Your task to perform on an android device: clear history in the chrome app Image 0: 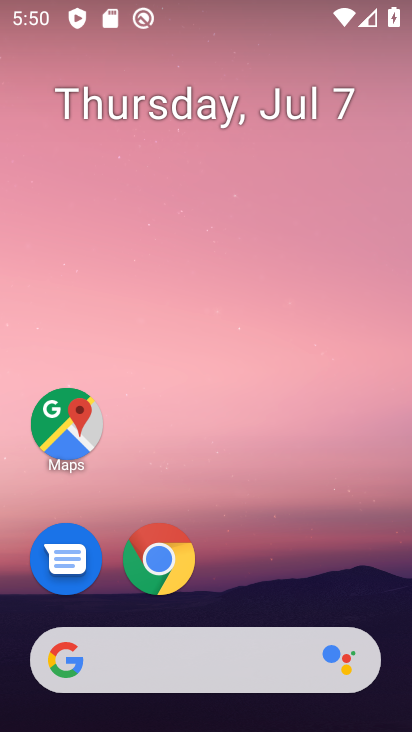
Step 0: drag from (264, 611) to (288, 46)
Your task to perform on an android device: clear history in the chrome app Image 1: 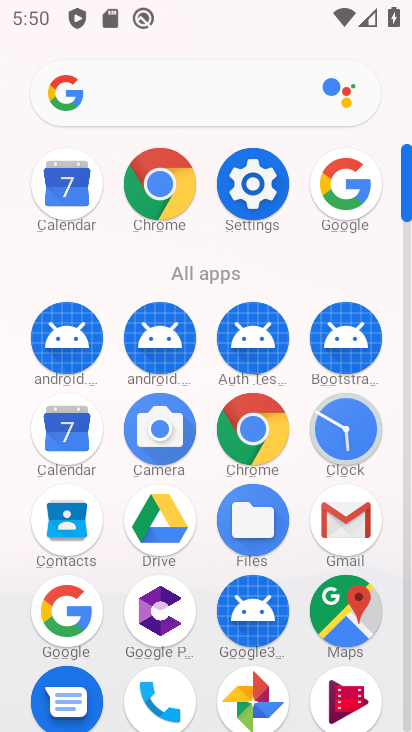
Step 1: click (160, 218)
Your task to perform on an android device: clear history in the chrome app Image 2: 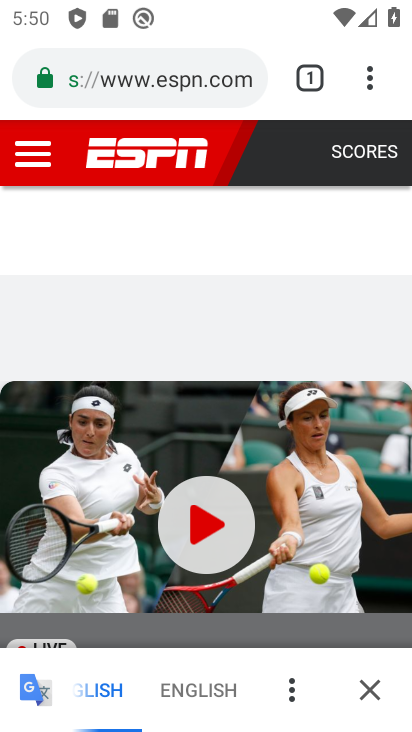
Step 2: click (375, 90)
Your task to perform on an android device: clear history in the chrome app Image 3: 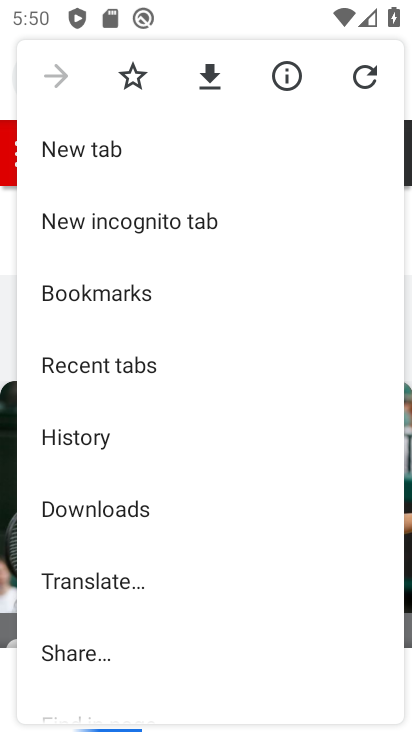
Step 3: click (103, 440)
Your task to perform on an android device: clear history in the chrome app Image 4: 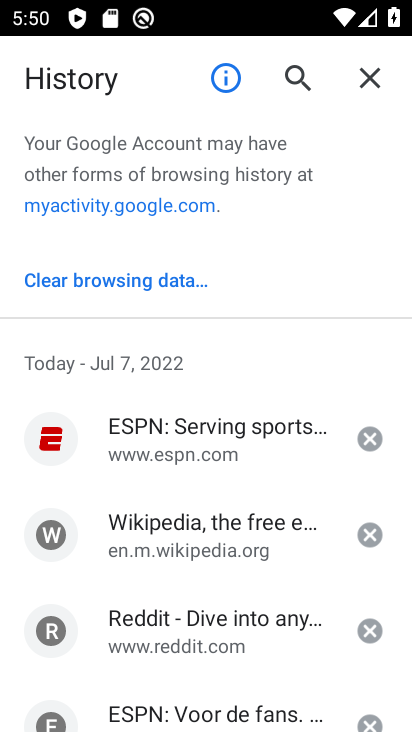
Step 4: click (153, 290)
Your task to perform on an android device: clear history in the chrome app Image 5: 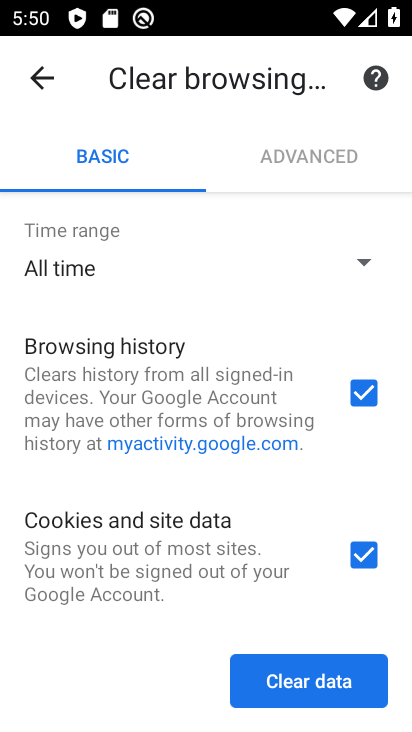
Step 5: click (365, 556)
Your task to perform on an android device: clear history in the chrome app Image 6: 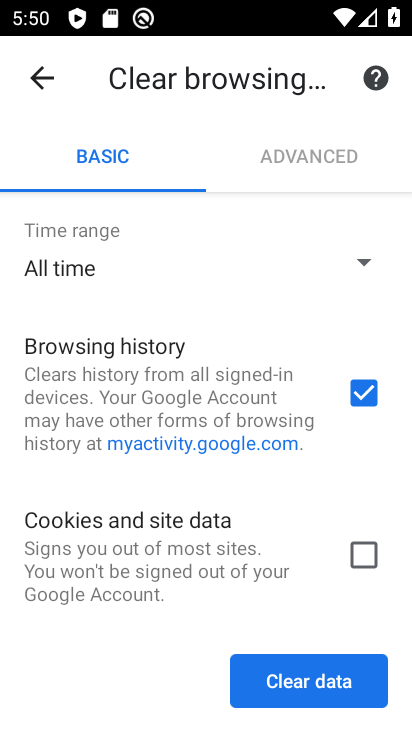
Step 6: click (344, 683)
Your task to perform on an android device: clear history in the chrome app Image 7: 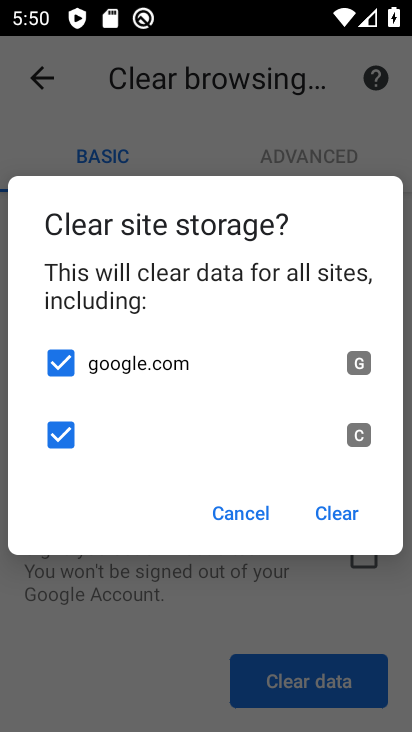
Step 7: click (337, 527)
Your task to perform on an android device: clear history in the chrome app Image 8: 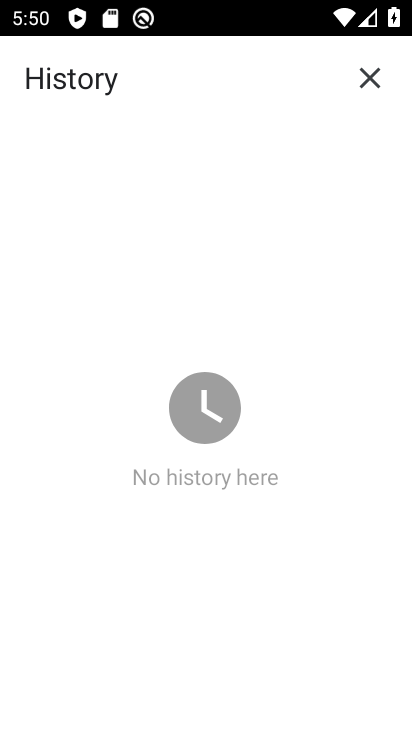
Step 8: task complete